Your task to perform on an android device: toggle show notifications on the lock screen Image 0: 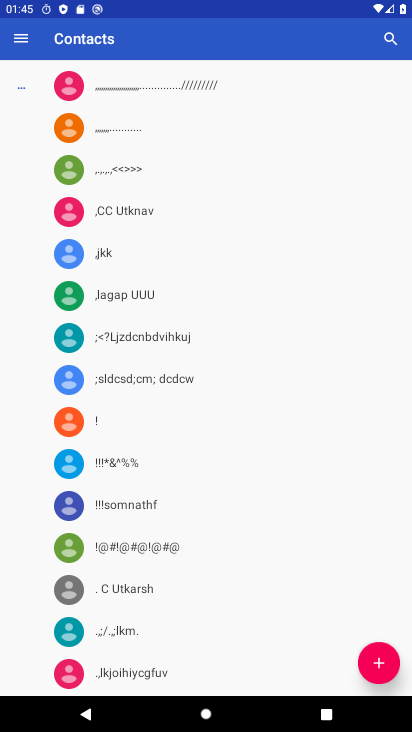
Step 0: press home button
Your task to perform on an android device: toggle show notifications on the lock screen Image 1: 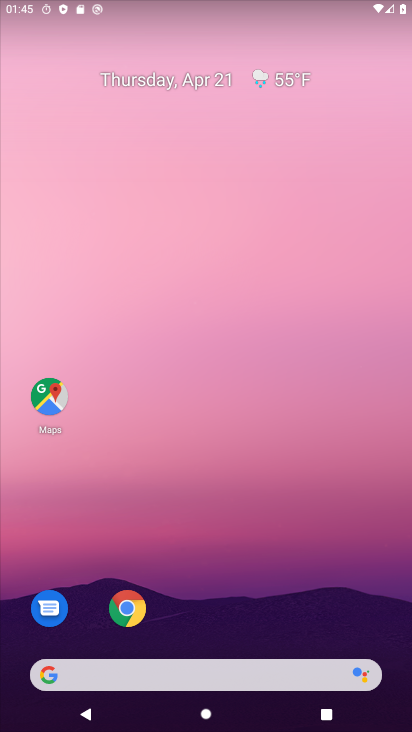
Step 1: drag from (186, 580) to (86, 127)
Your task to perform on an android device: toggle show notifications on the lock screen Image 2: 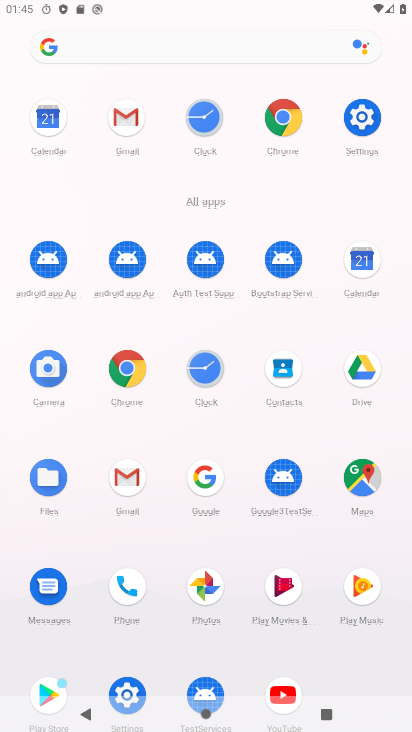
Step 2: click (363, 119)
Your task to perform on an android device: toggle show notifications on the lock screen Image 3: 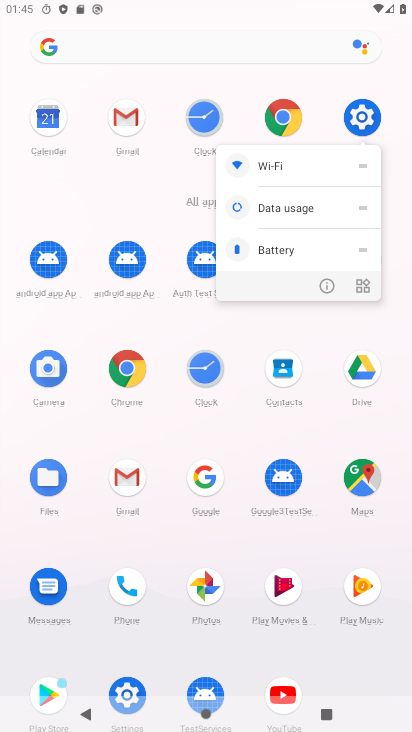
Step 3: click (368, 115)
Your task to perform on an android device: toggle show notifications on the lock screen Image 4: 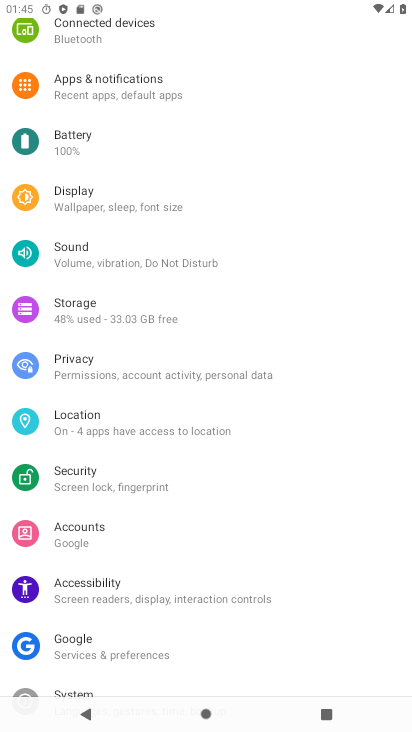
Step 4: click (99, 91)
Your task to perform on an android device: toggle show notifications on the lock screen Image 5: 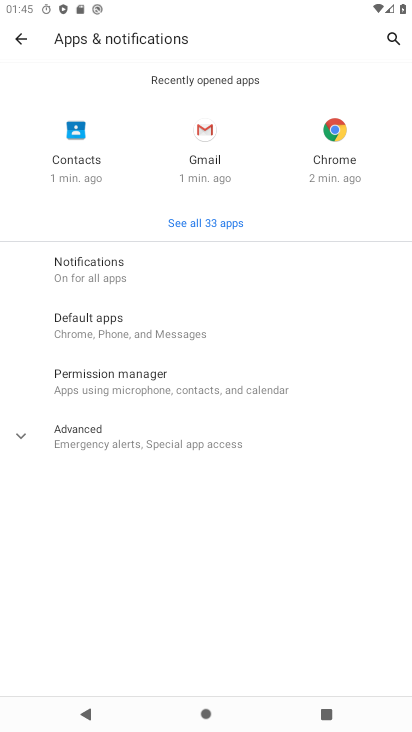
Step 5: click (100, 263)
Your task to perform on an android device: toggle show notifications on the lock screen Image 6: 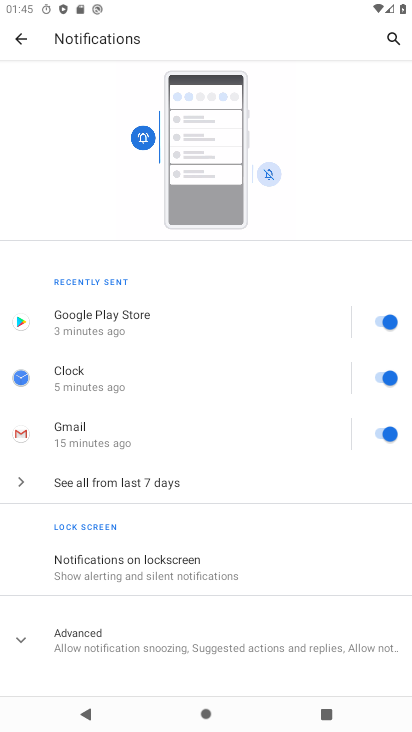
Step 6: click (107, 568)
Your task to perform on an android device: toggle show notifications on the lock screen Image 7: 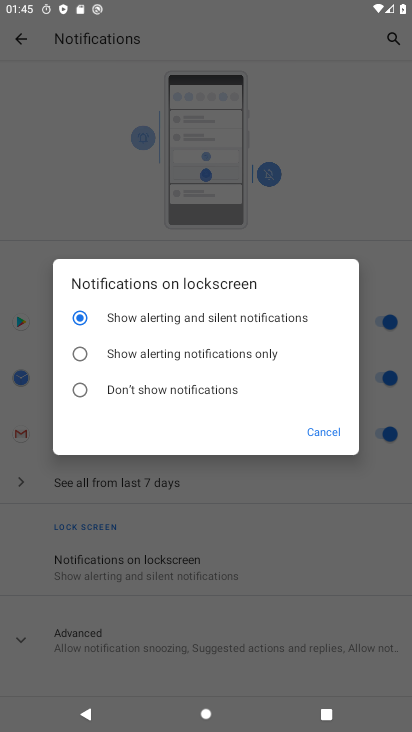
Step 7: click (123, 350)
Your task to perform on an android device: toggle show notifications on the lock screen Image 8: 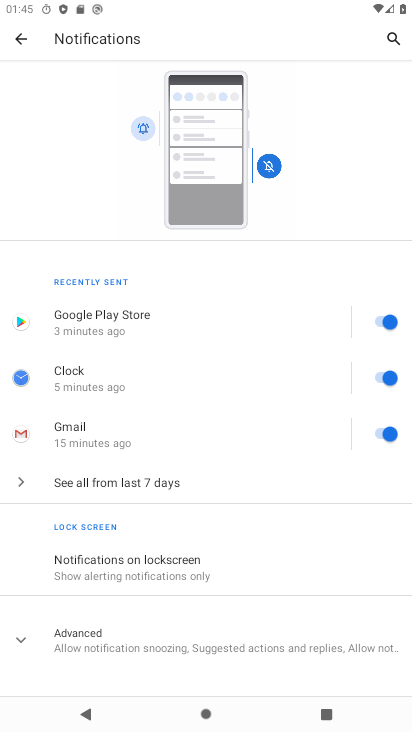
Step 8: task complete